Your task to perform on an android device: open device folders in google photos Image 0: 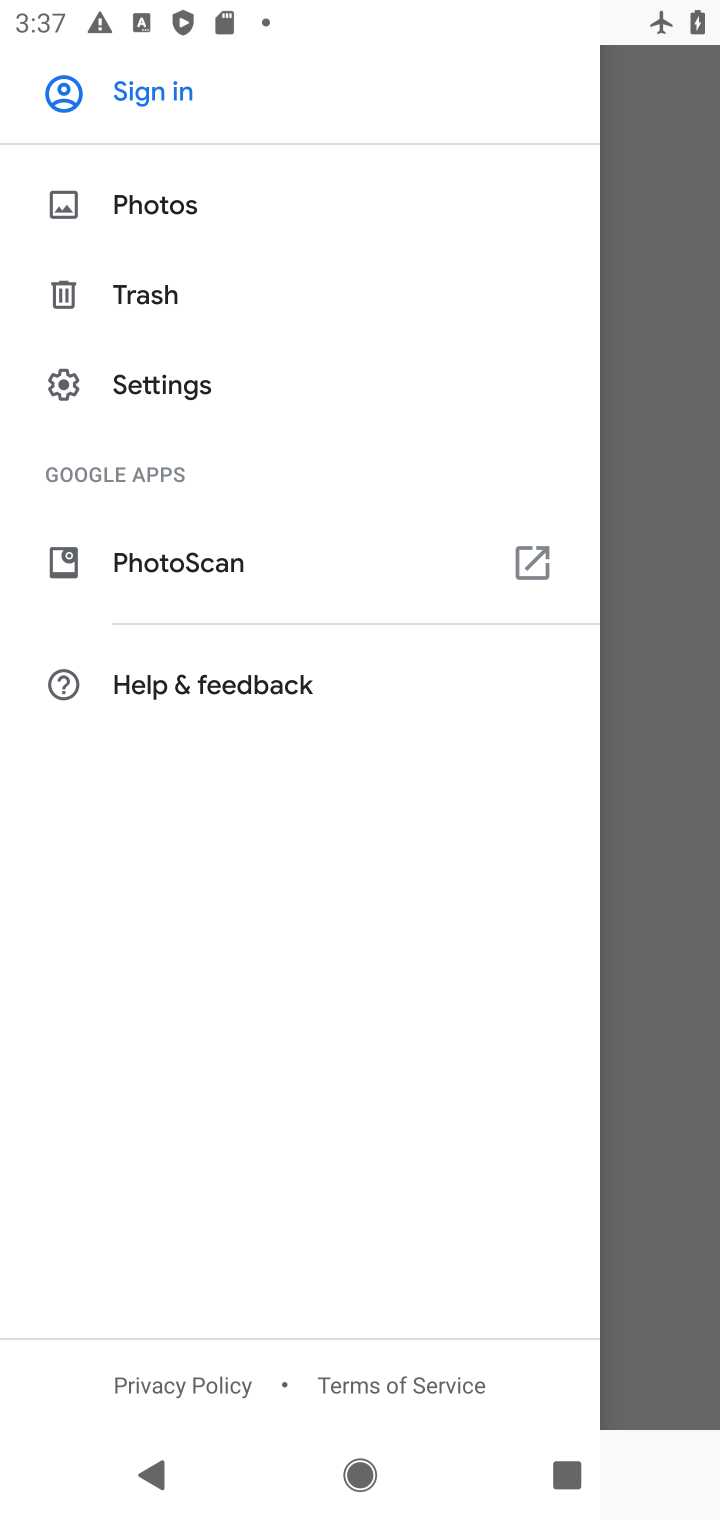
Step 0: press home button
Your task to perform on an android device: open device folders in google photos Image 1: 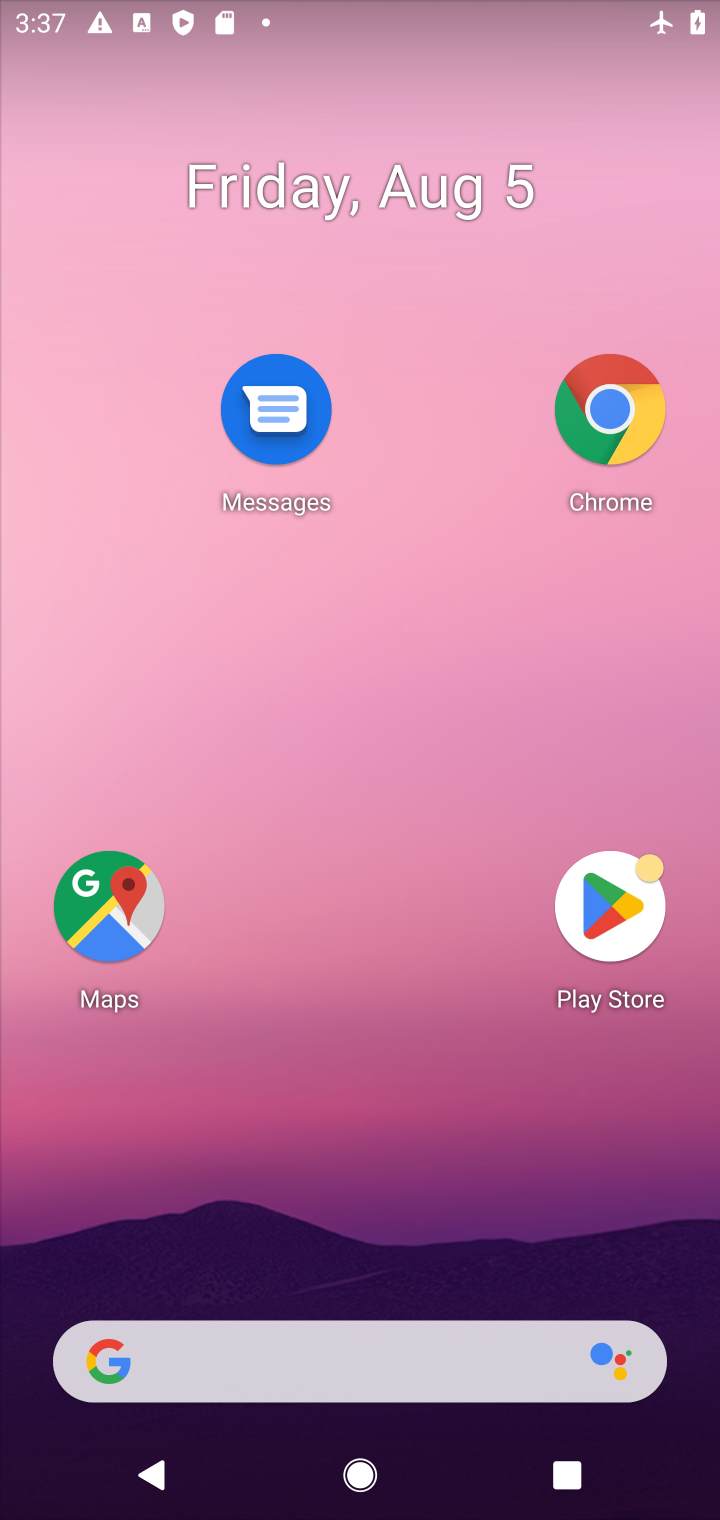
Step 1: drag from (407, 701) to (414, 144)
Your task to perform on an android device: open device folders in google photos Image 2: 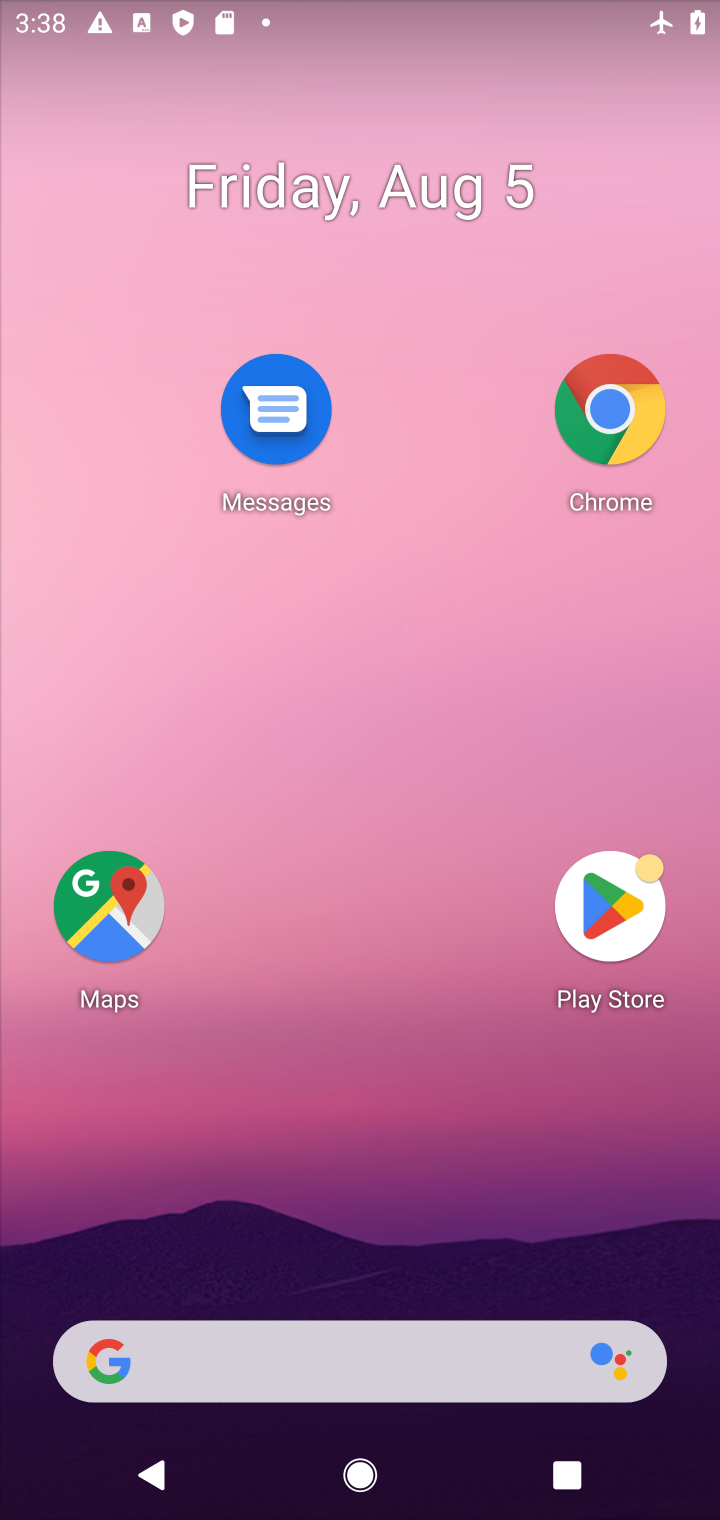
Step 2: drag from (374, 1222) to (357, 245)
Your task to perform on an android device: open device folders in google photos Image 3: 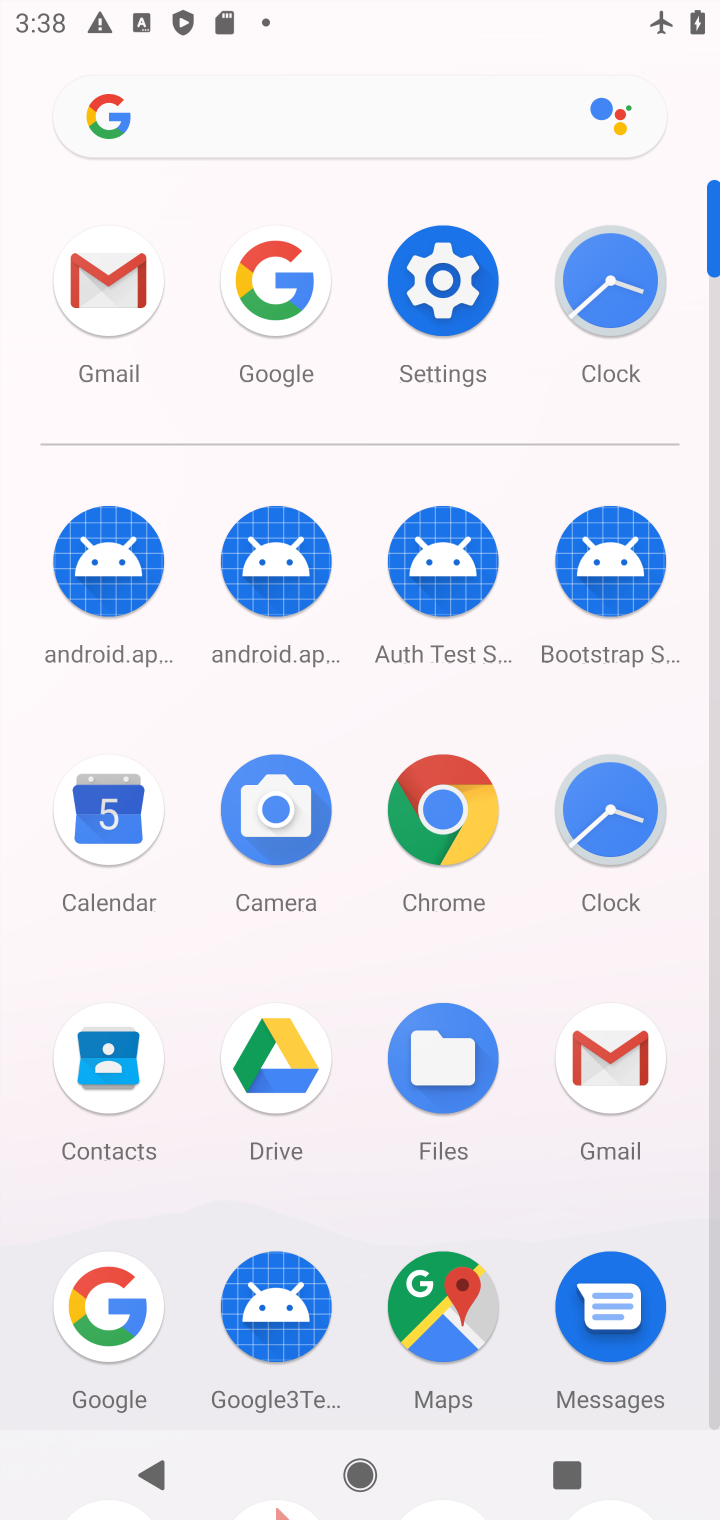
Step 3: drag from (345, 959) to (350, 432)
Your task to perform on an android device: open device folders in google photos Image 4: 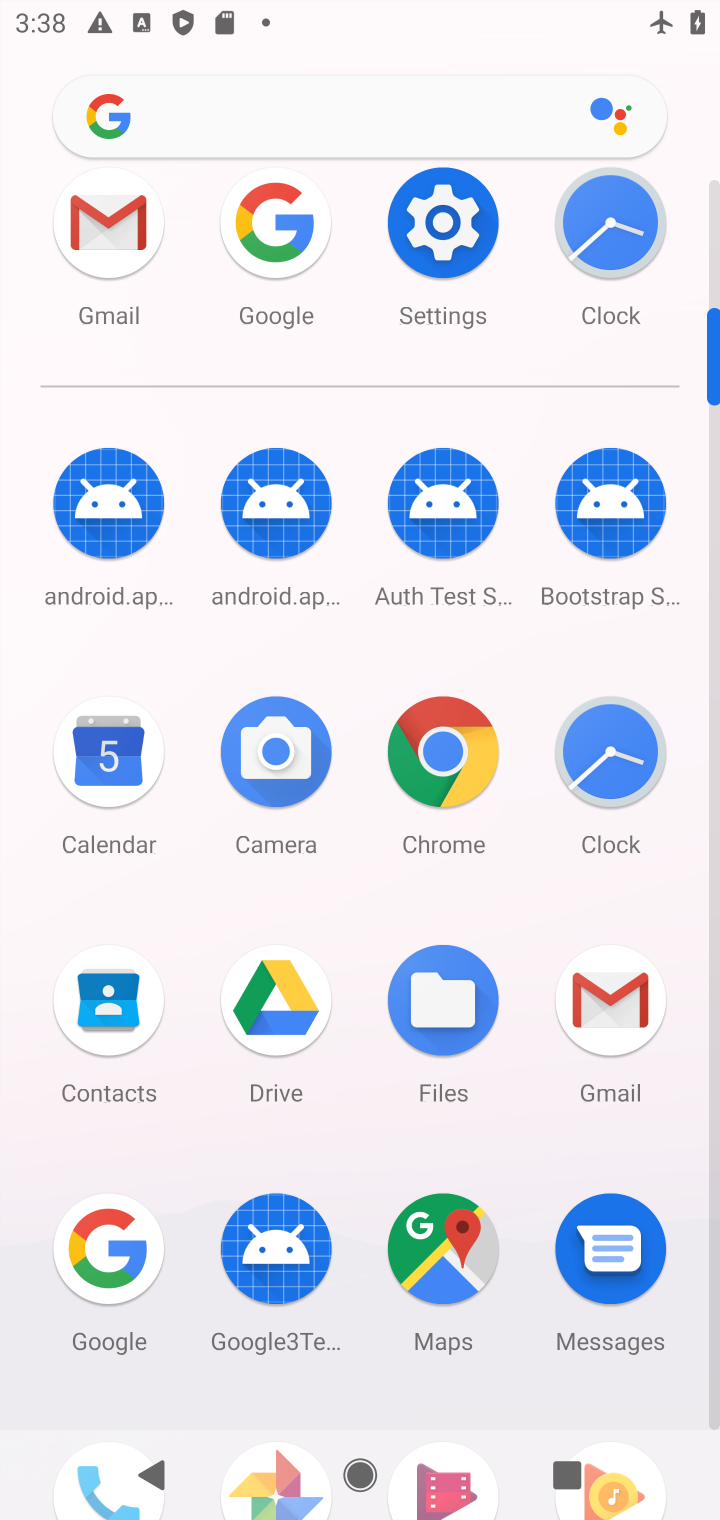
Step 4: drag from (365, 992) to (376, 415)
Your task to perform on an android device: open device folders in google photos Image 5: 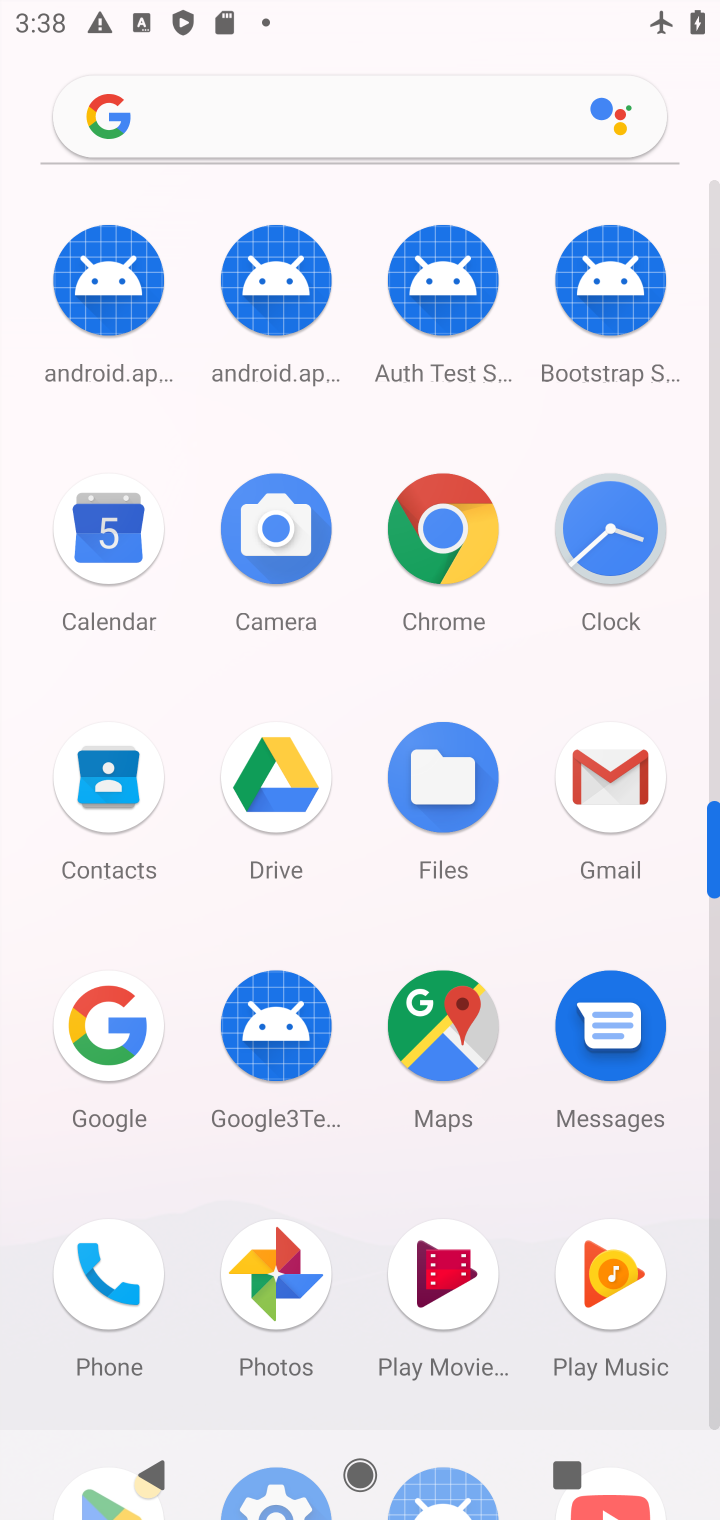
Step 5: click (268, 1252)
Your task to perform on an android device: open device folders in google photos Image 6: 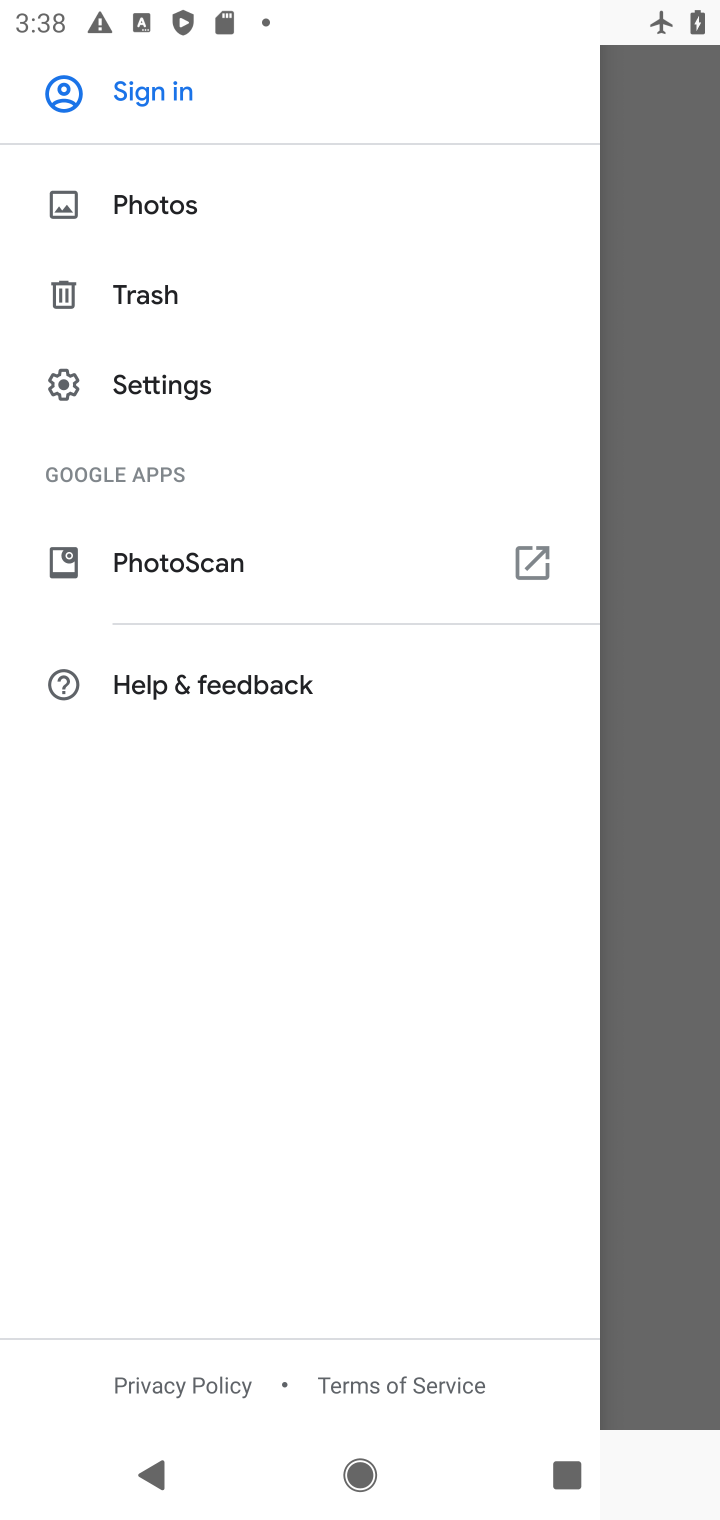
Step 6: click (212, 220)
Your task to perform on an android device: open device folders in google photos Image 7: 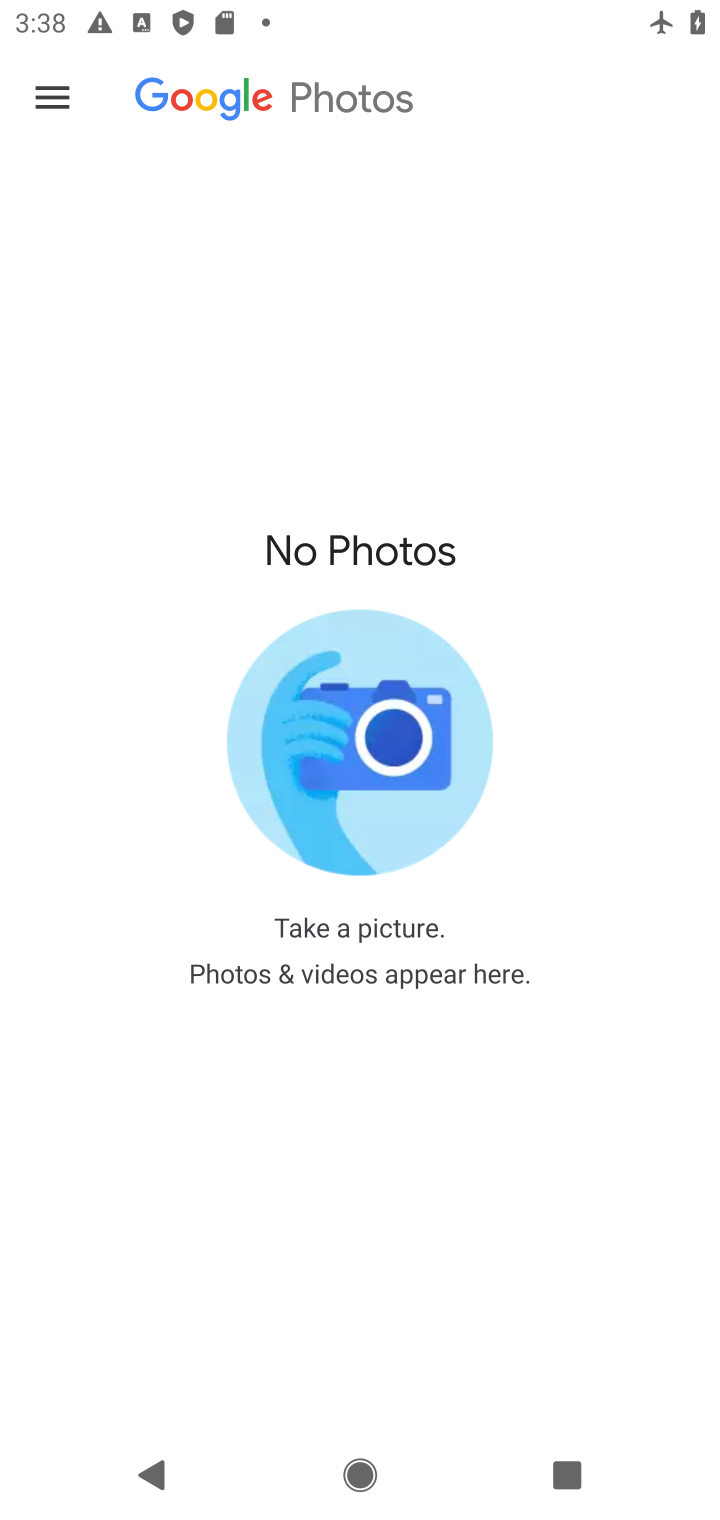
Step 7: click (65, 95)
Your task to perform on an android device: open device folders in google photos Image 8: 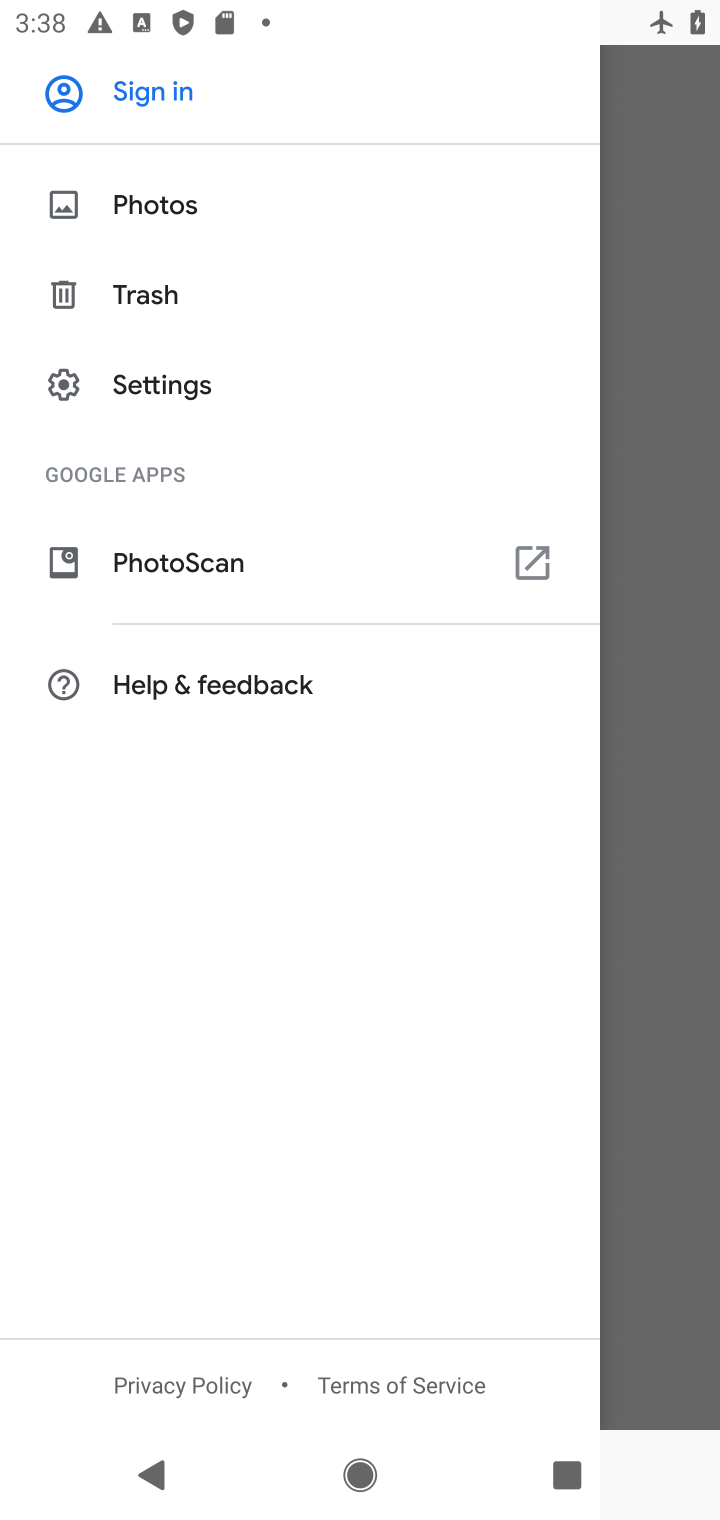
Step 8: task complete